Your task to perform on an android device: turn on wifi Image 0: 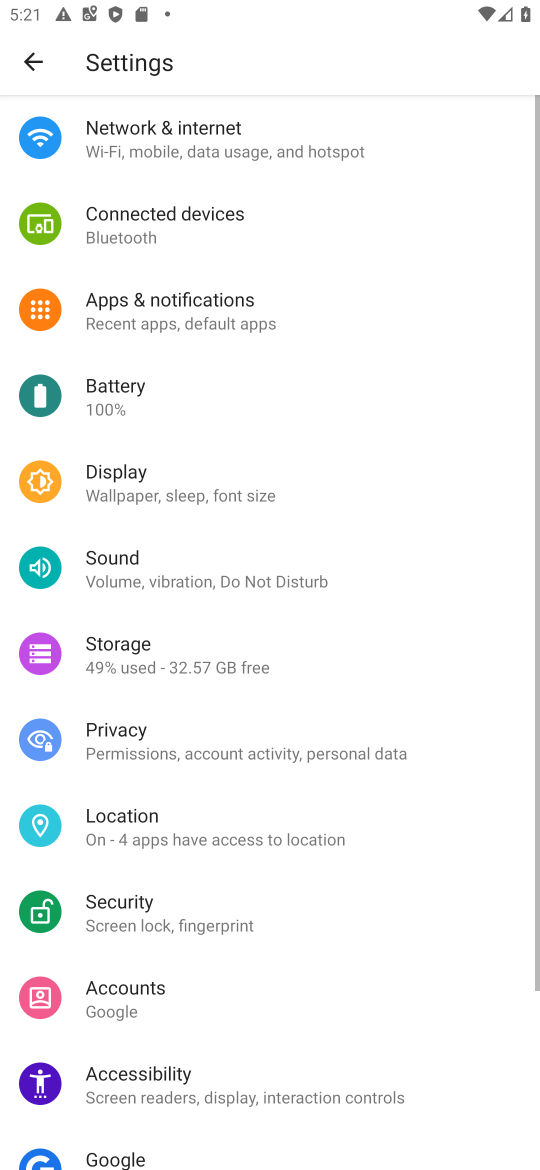
Step 0: click (163, 128)
Your task to perform on an android device: turn on wifi Image 1: 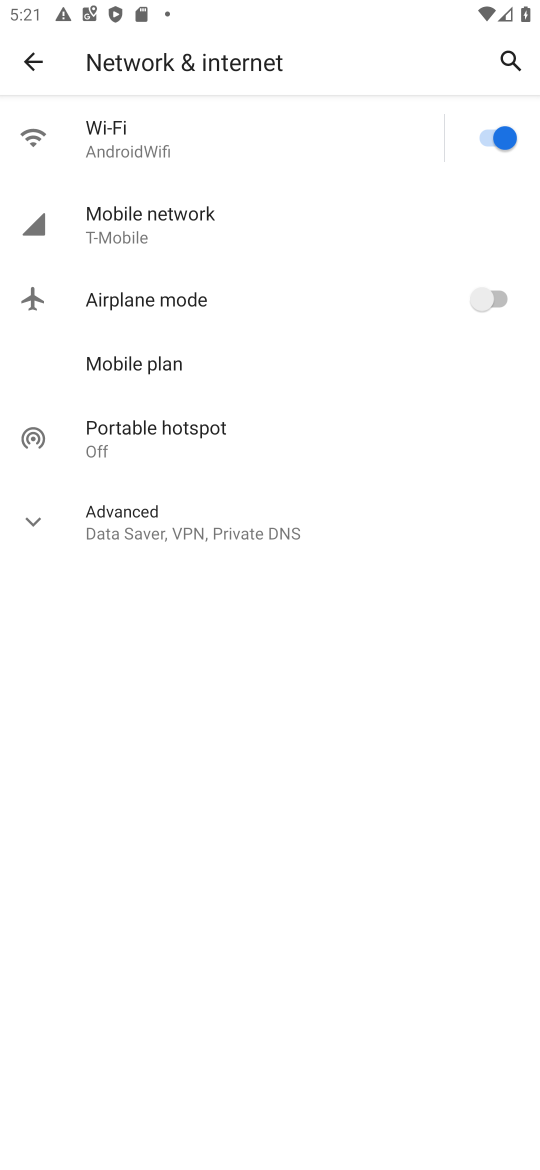
Step 1: task complete